Your task to perform on an android device: clear all cookies in the chrome app Image 0: 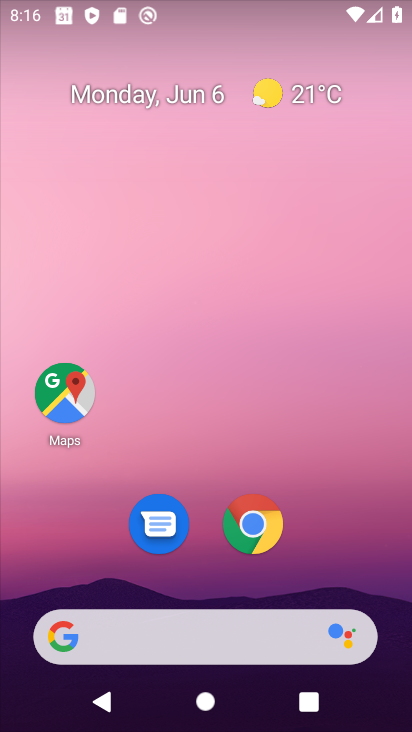
Step 0: click (267, 533)
Your task to perform on an android device: clear all cookies in the chrome app Image 1: 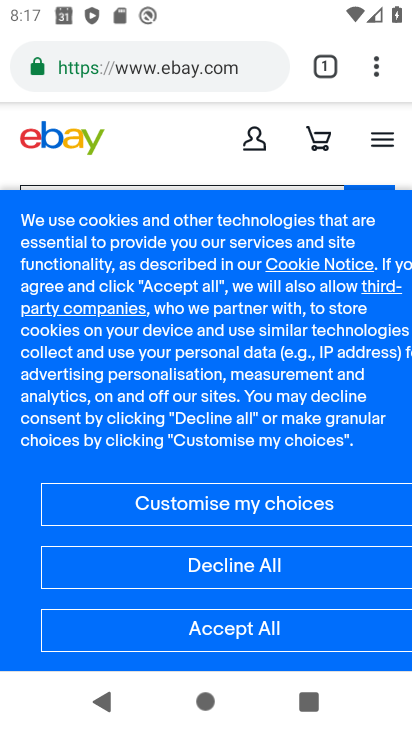
Step 1: click (370, 57)
Your task to perform on an android device: clear all cookies in the chrome app Image 2: 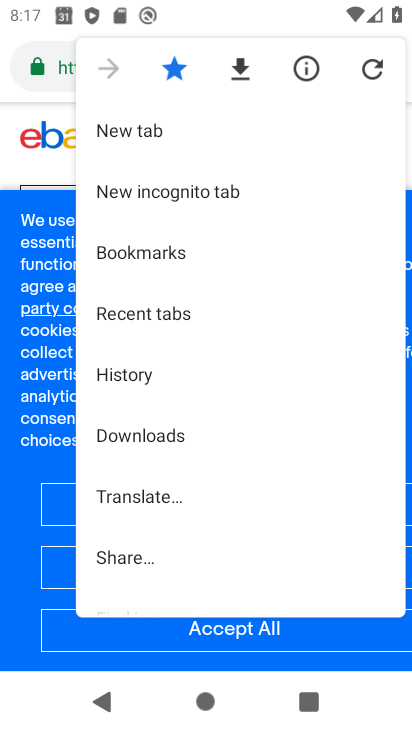
Step 2: click (159, 370)
Your task to perform on an android device: clear all cookies in the chrome app Image 3: 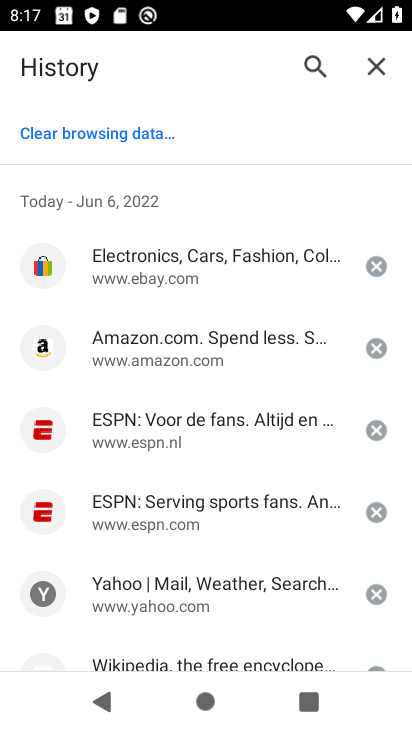
Step 3: click (138, 131)
Your task to perform on an android device: clear all cookies in the chrome app Image 4: 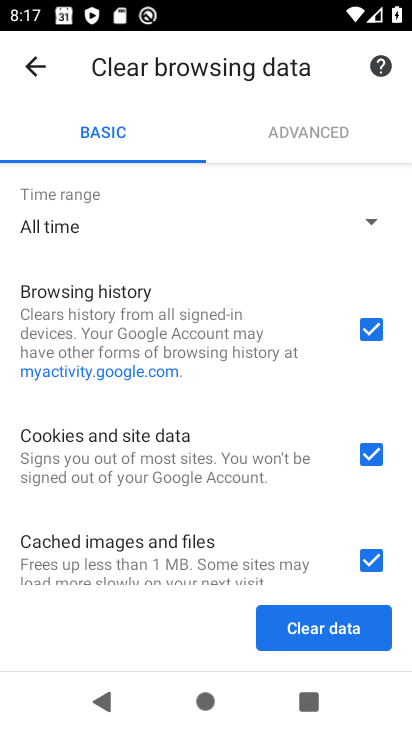
Step 4: click (373, 323)
Your task to perform on an android device: clear all cookies in the chrome app Image 5: 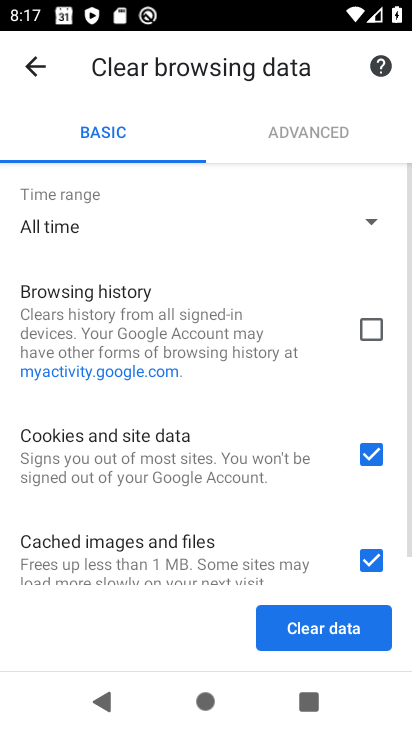
Step 5: click (376, 560)
Your task to perform on an android device: clear all cookies in the chrome app Image 6: 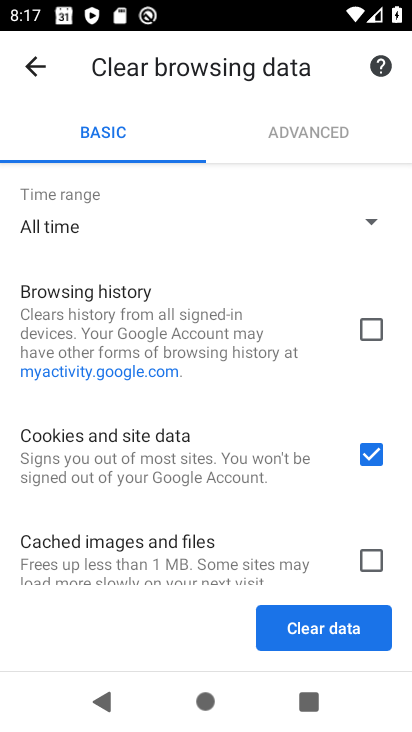
Step 6: click (332, 636)
Your task to perform on an android device: clear all cookies in the chrome app Image 7: 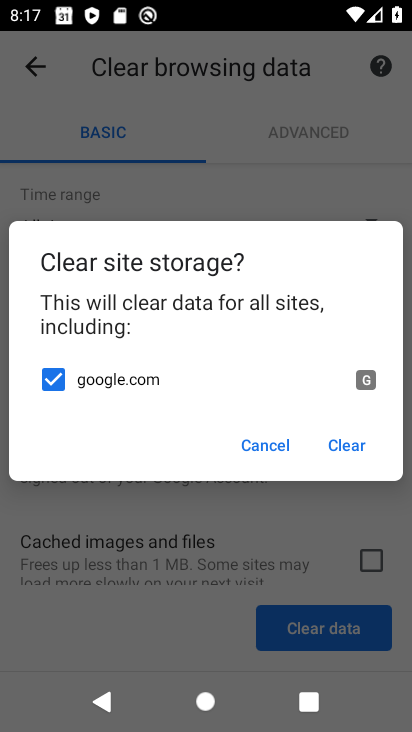
Step 7: click (342, 447)
Your task to perform on an android device: clear all cookies in the chrome app Image 8: 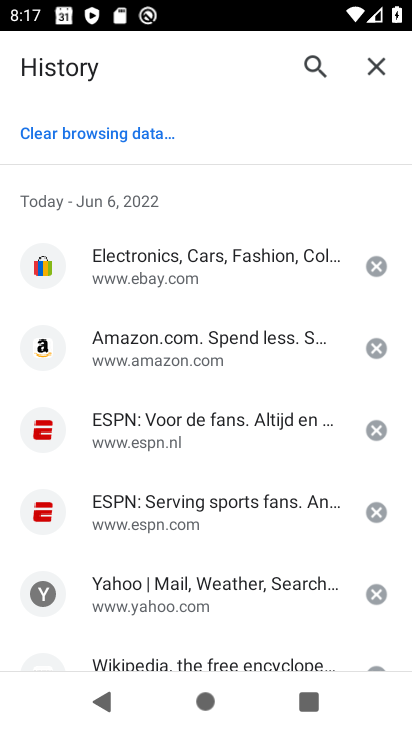
Step 8: task complete